Your task to perform on an android device: Search for sushi restaurants on Maps Image 0: 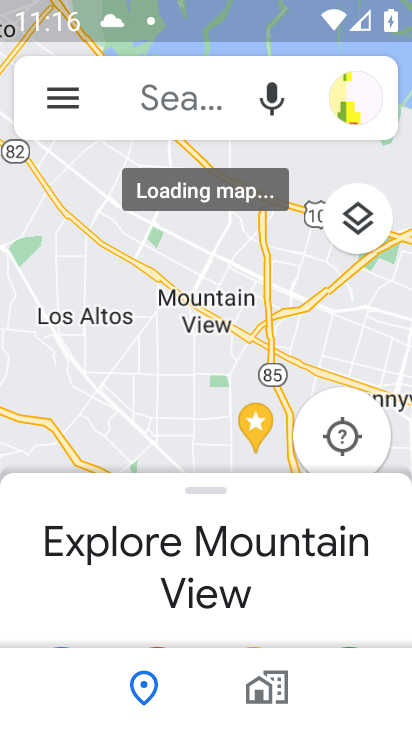
Step 0: press home button
Your task to perform on an android device: Search for sushi restaurants on Maps Image 1: 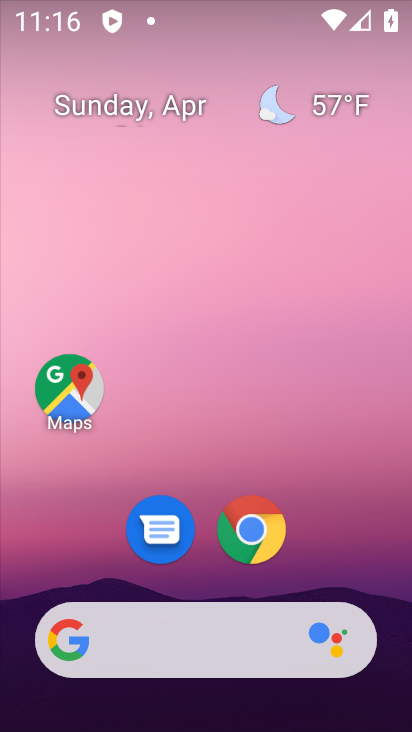
Step 1: click (58, 384)
Your task to perform on an android device: Search for sushi restaurants on Maps Image 2: 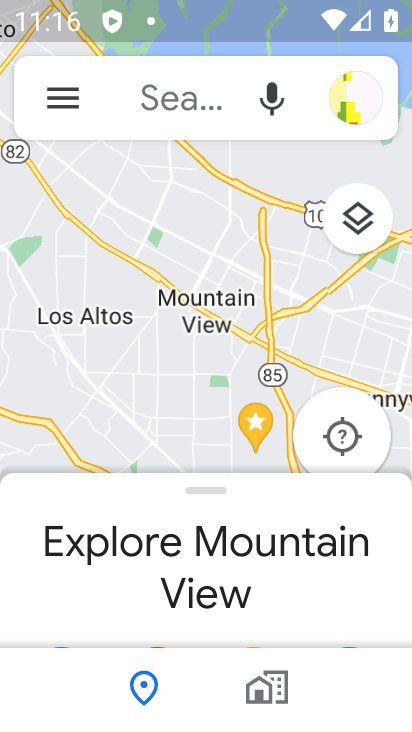
Step 2: click (208, 75)
Your task to perform on an android device: Search for sushi restaurants on Maps Image 3: 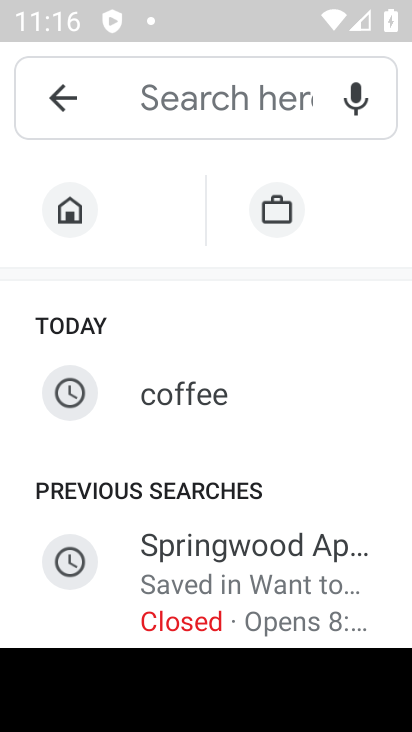
Step 3: type "sushi restaurants"
Your task to perform on an android device: Search for sushi restaurants on Maps Image 4: 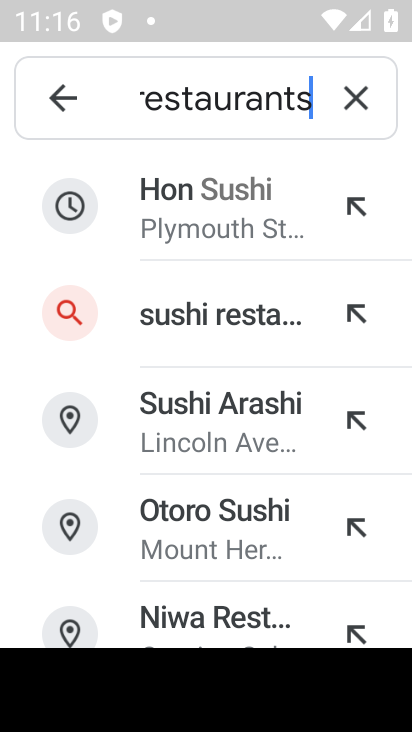
Step 4: click (217, 324)
Your task to perform on an android device: Search for sushi restaurants on Maps Image 5: 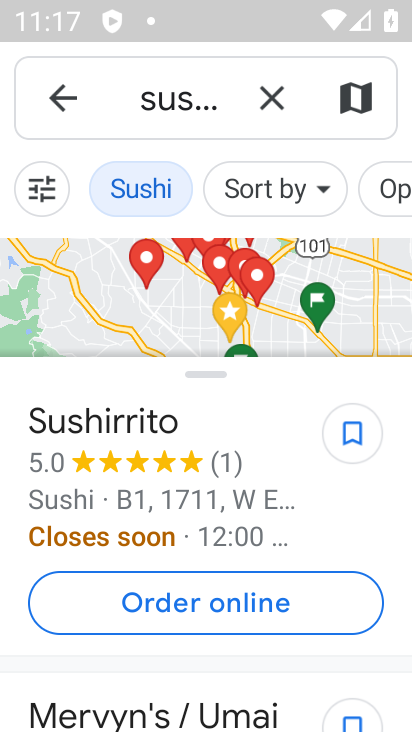
Step 5: task complete